Your task to perform on an android device: Open calendar and show me the first week of next month Image 0: 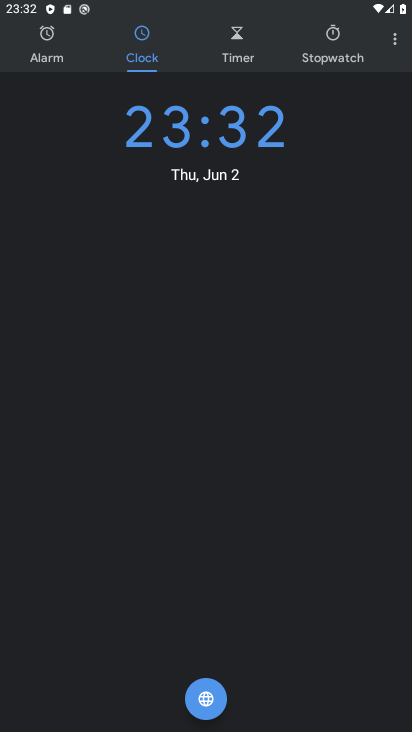
Step 0: press home button
Your task to perform on an android device: Open calendar and show me the first week of next month Image 1: 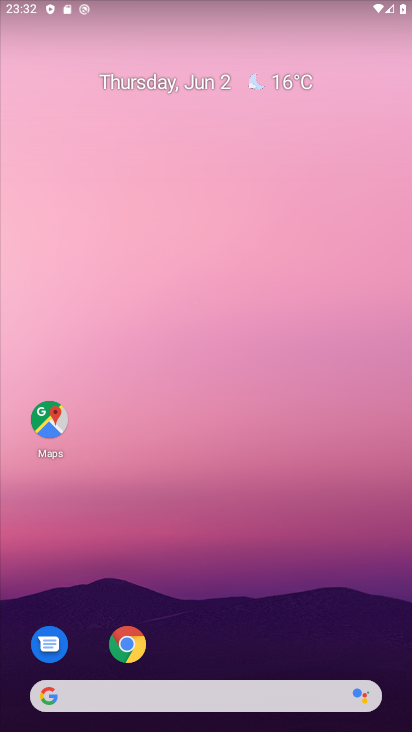
Step 1: drag from (227, 631) to (343, 158)
Your task to perform on an android device: Open calendar and show me the first week of next month Image 2: 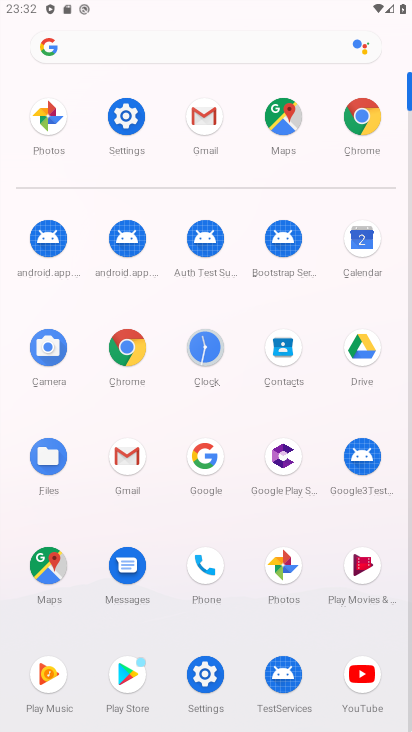
Step 2: click (358, 234)
Your task to perform on an android device: Open calendar and show me the first week of next month Image 3: 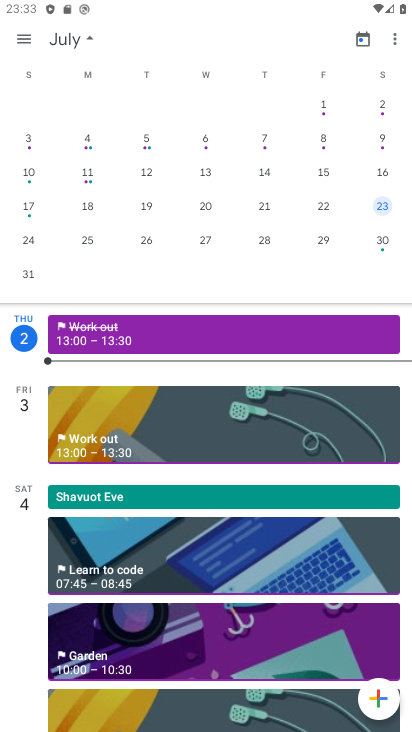
Step 3: click (320, 104)
Your task to perform on an android device: Open calendar and show me the first week of next month Image 4: 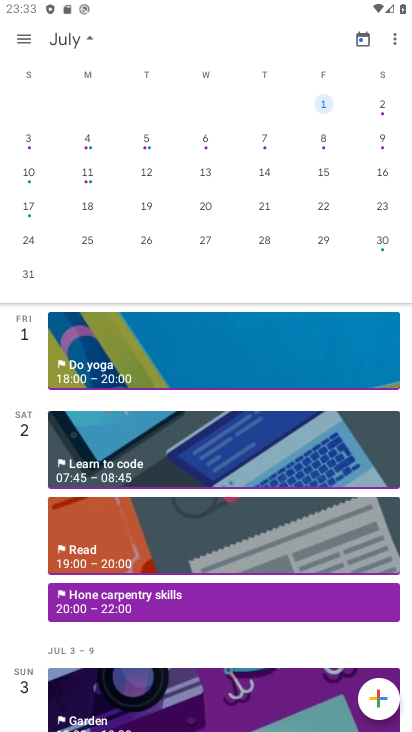
Step 4: click (377, 105)
Your task to perform on an android device: Open calendar and show me the first week of next month Image 5: 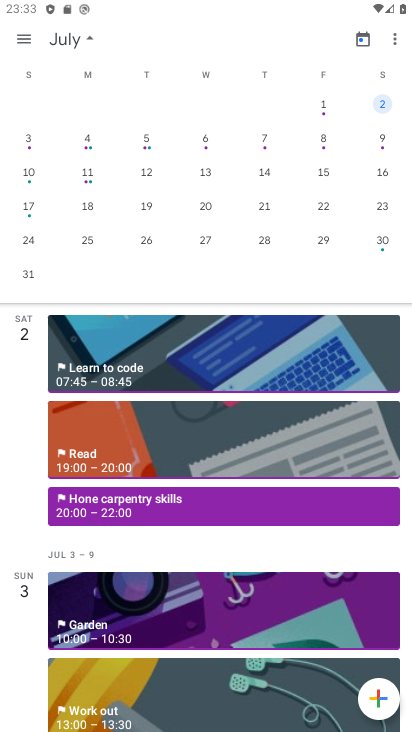
Step 5: task complete